Your task to perform on an android device: Search for pizza restaurants on Maps Image 0: 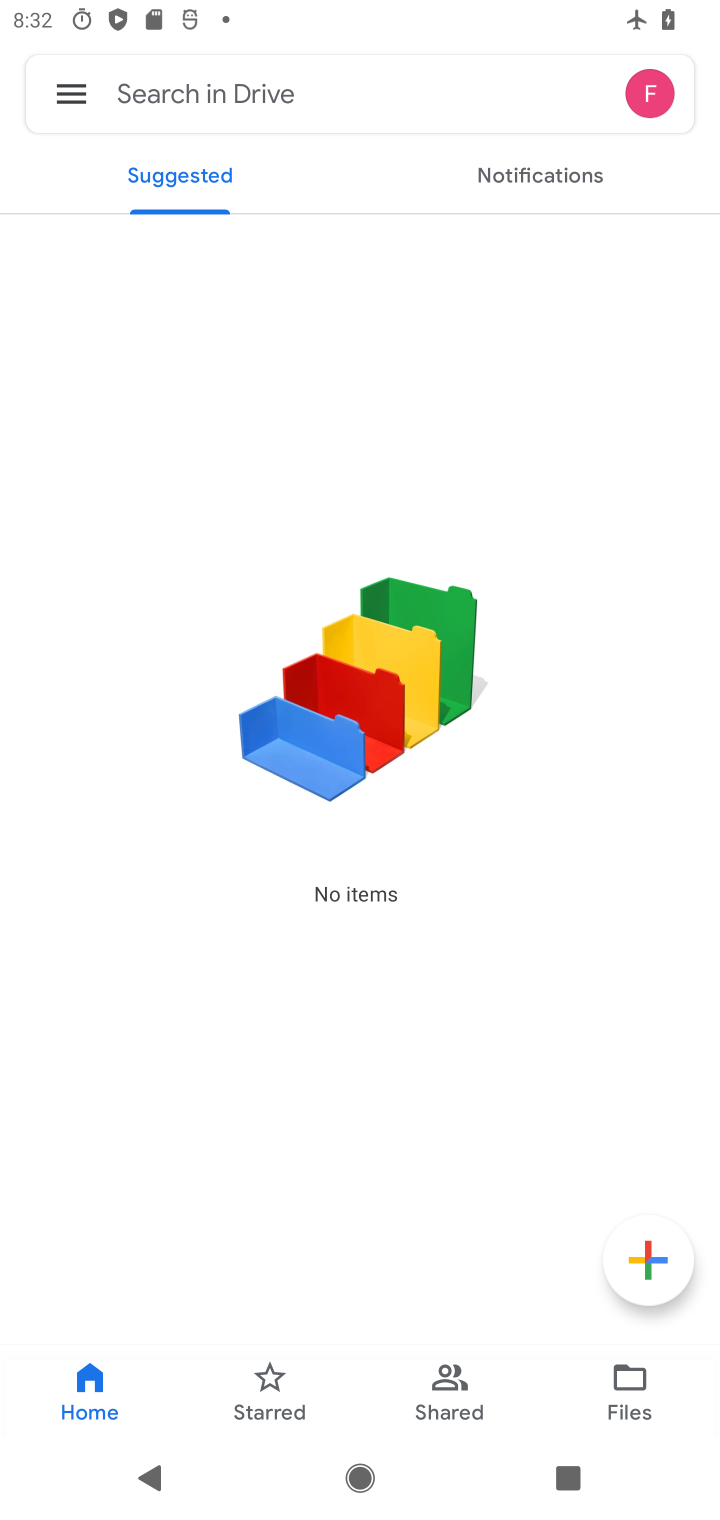
Step 0: press home button
Your task to perform on an android device: Search for pizza restaurants on Maps Image 1: 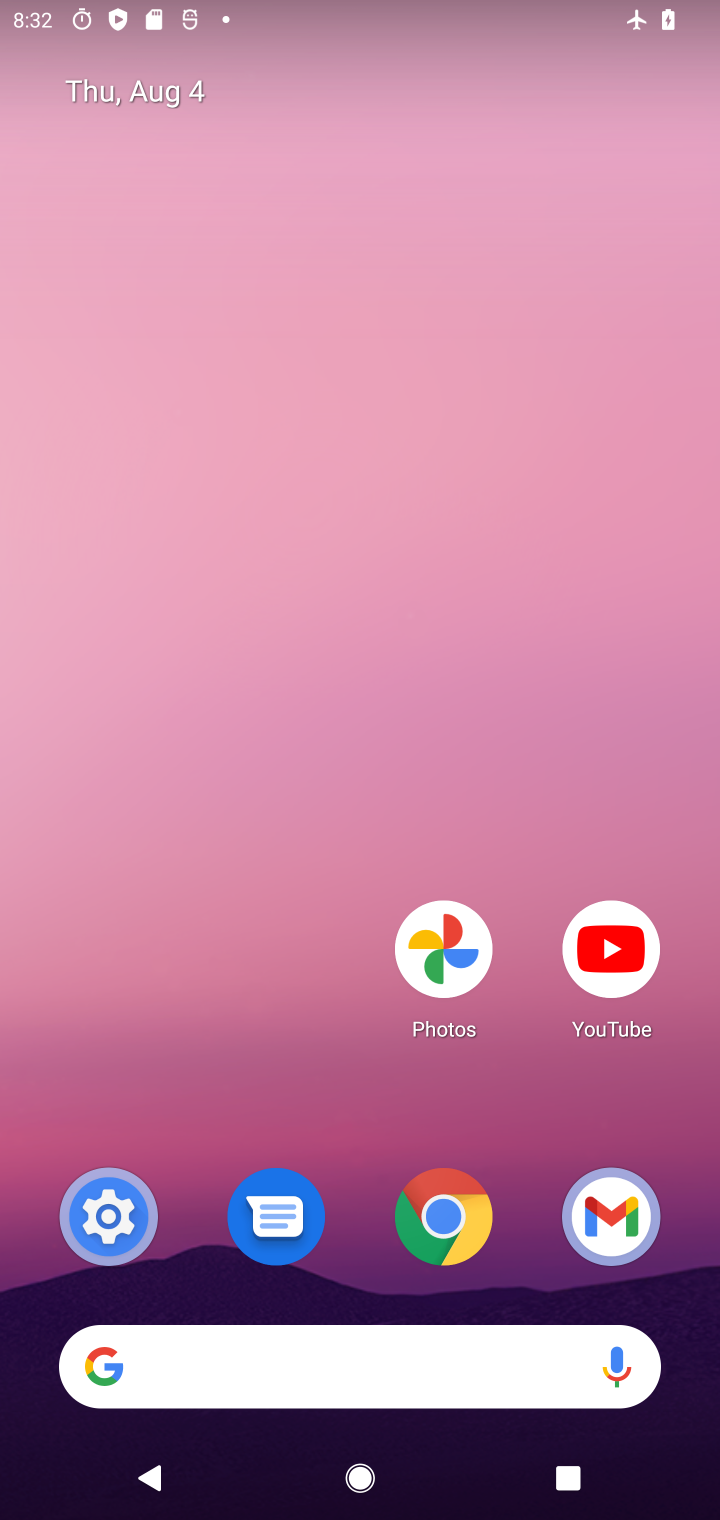
Step 1: drag from (362, 1172) to (360, 198)
Your task to perform on an android device: Search for pizza restaurants on Maps Image 2: 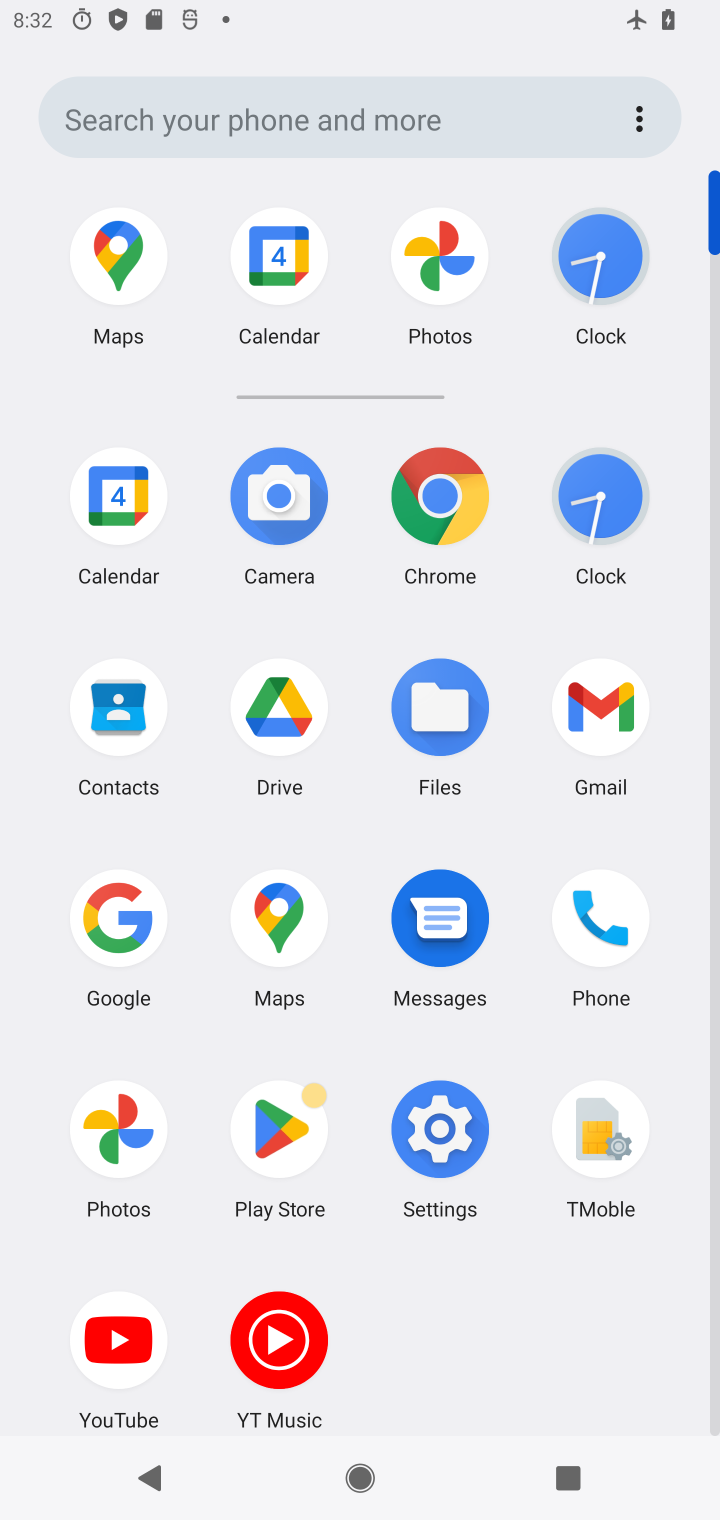
Step 2: click (277, 900)
Your task to perform on an android device: Search for pizza restaurants on Maps Image 3: 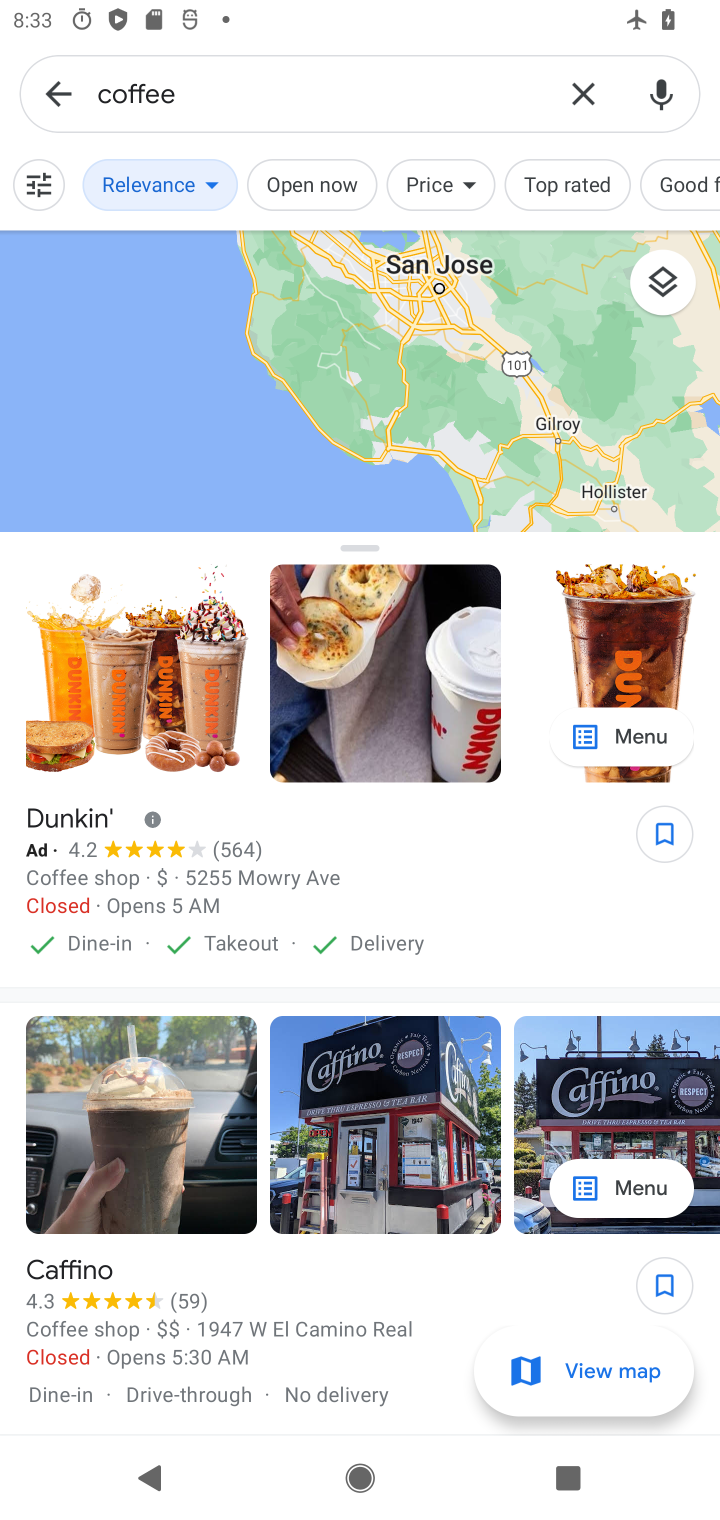
Step 3: click (576, 90)
Your task to perform on an android device: Search for pizza restaurants on Maps Image 4: 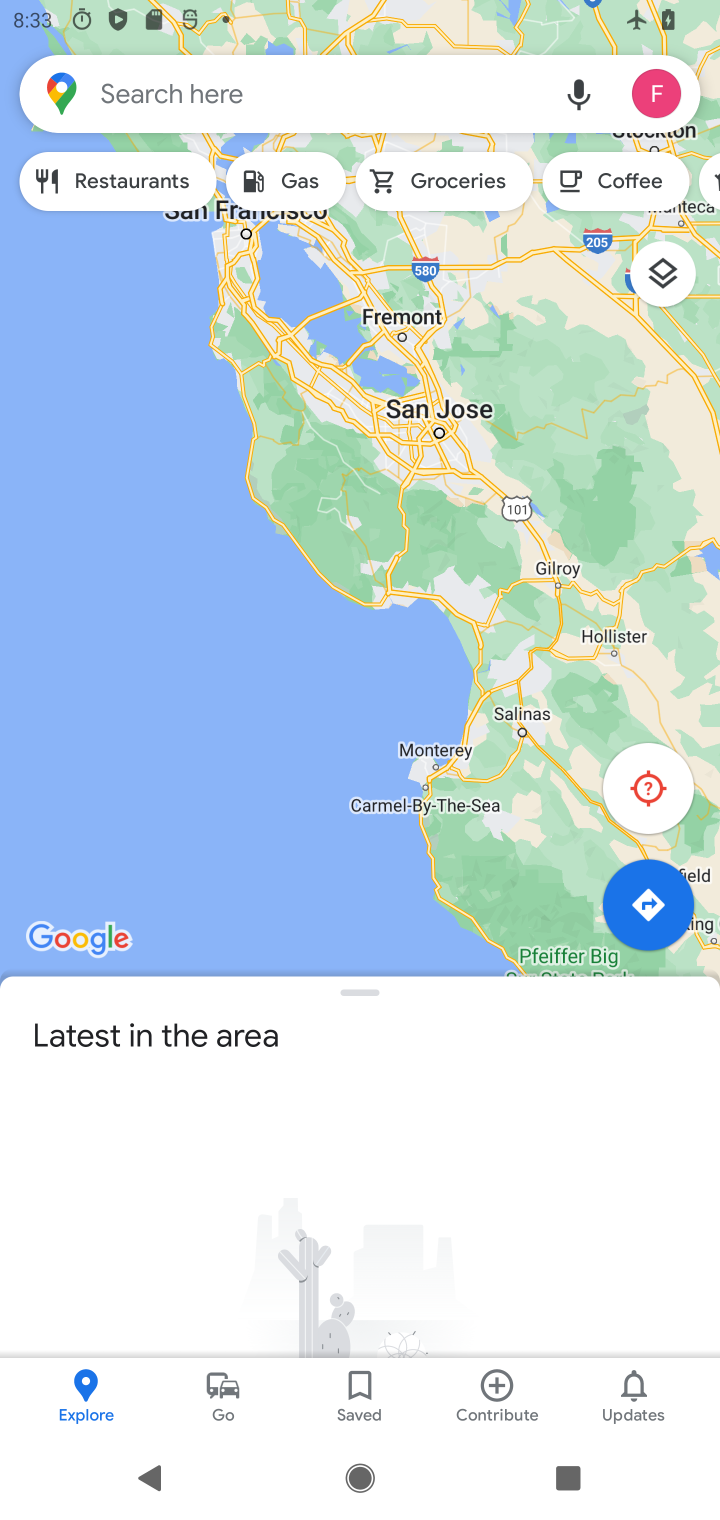
Step 4: click (349, 96)
Your task to perform on an android device: Search for pizza restaurants on Maps Image 5: 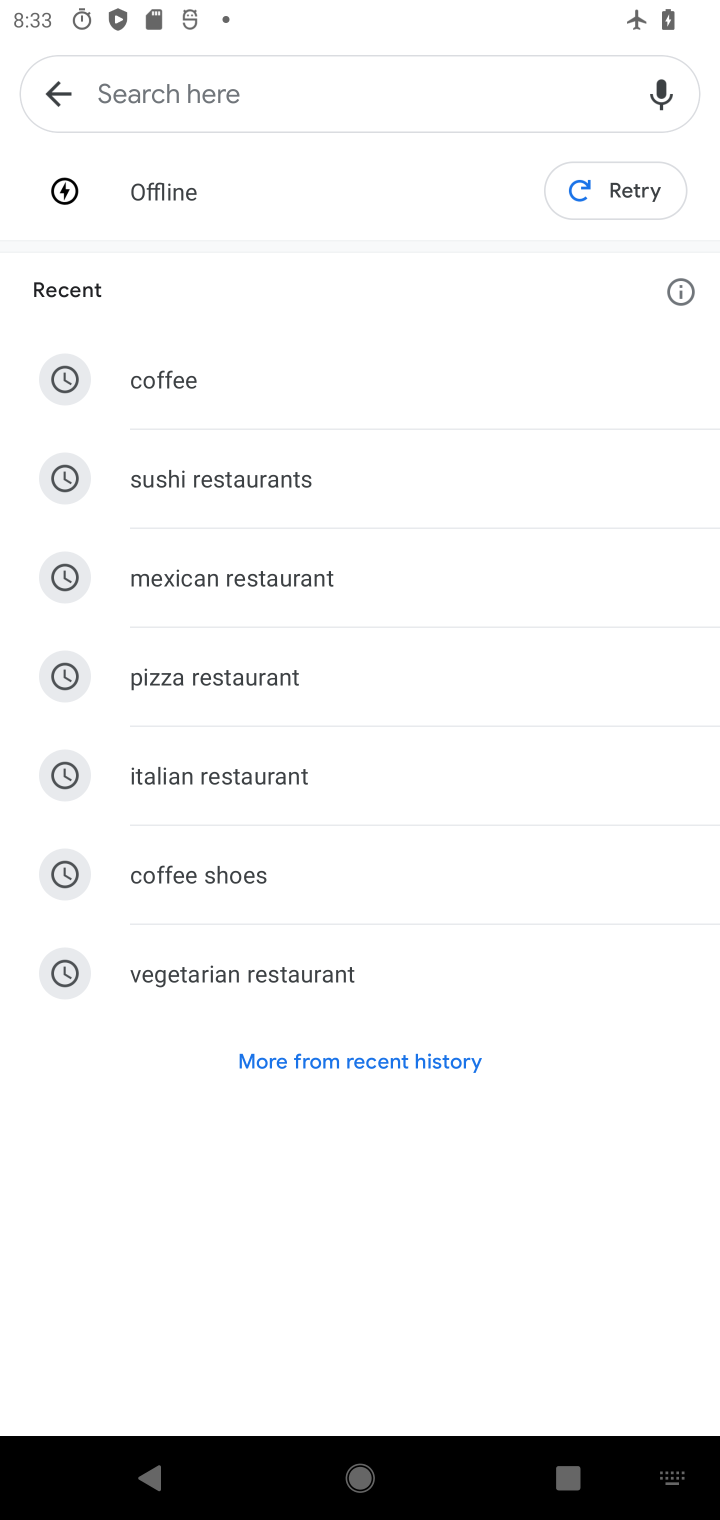
Step 5: type "Pizza restaurants"
Your task to perform on an android device: Search for pizza restaurants on Maps Image 6: 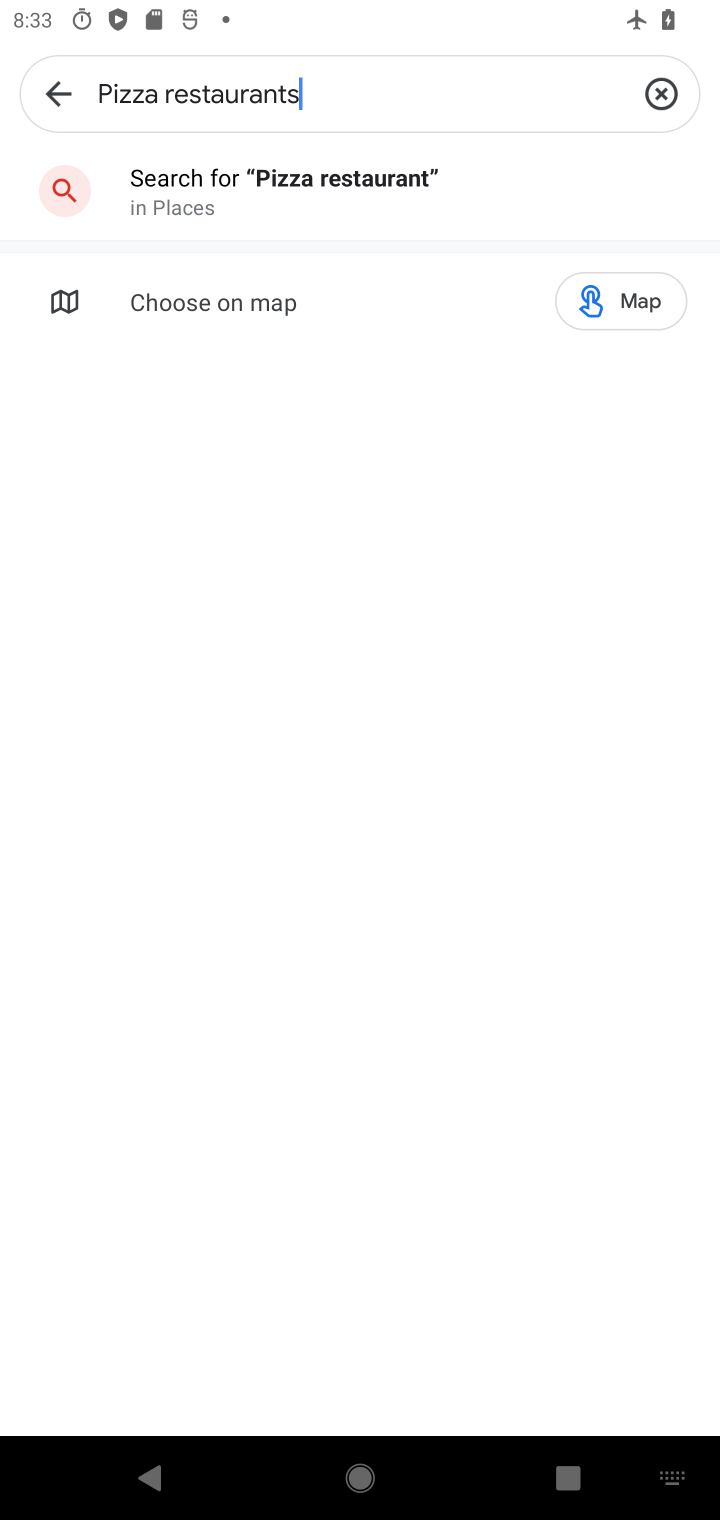
Step 6: type ""
Your task to perform on an android device: Search for pizza restaurants on Maps Image 7: 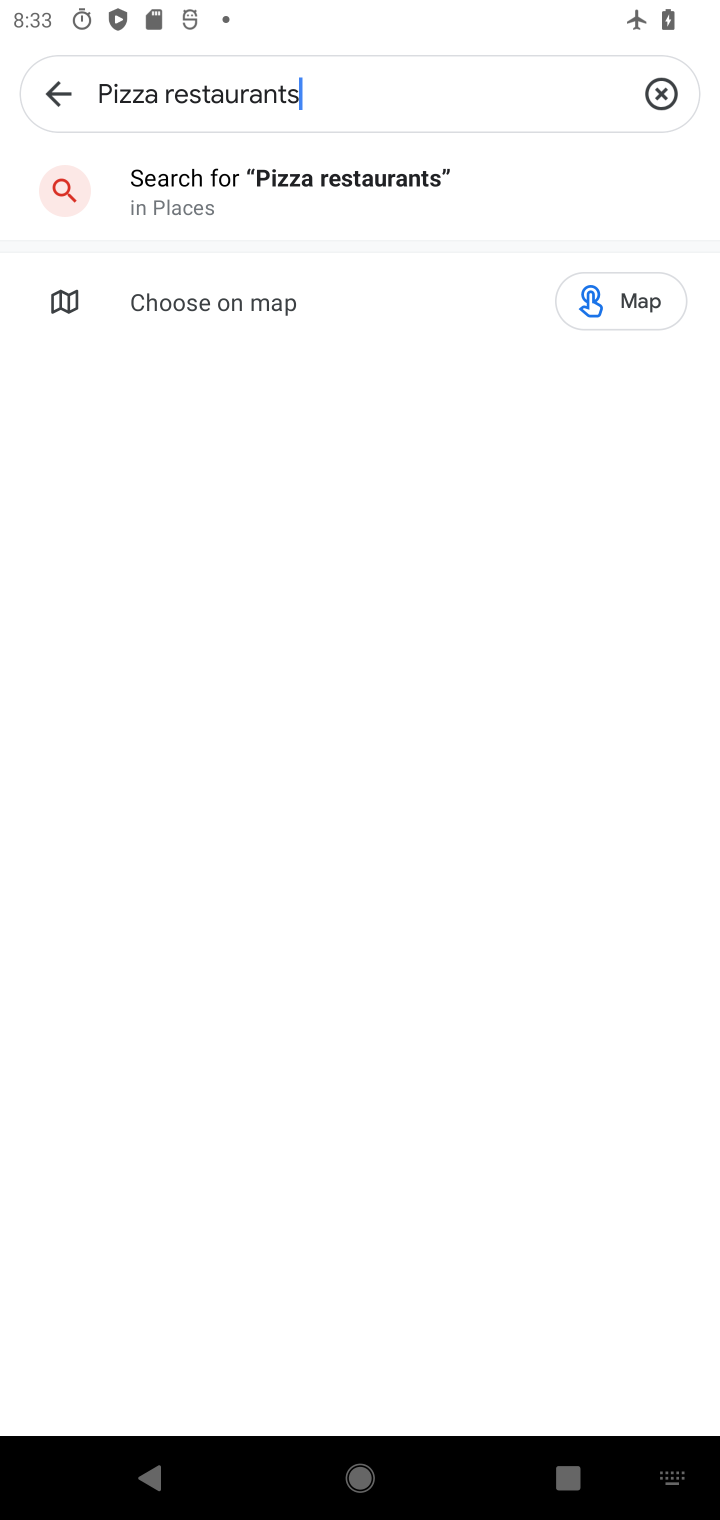
Step 7: click (331, 174)
Your task to perform on an android device: Search for pizza restaurants on Maps Image 8: 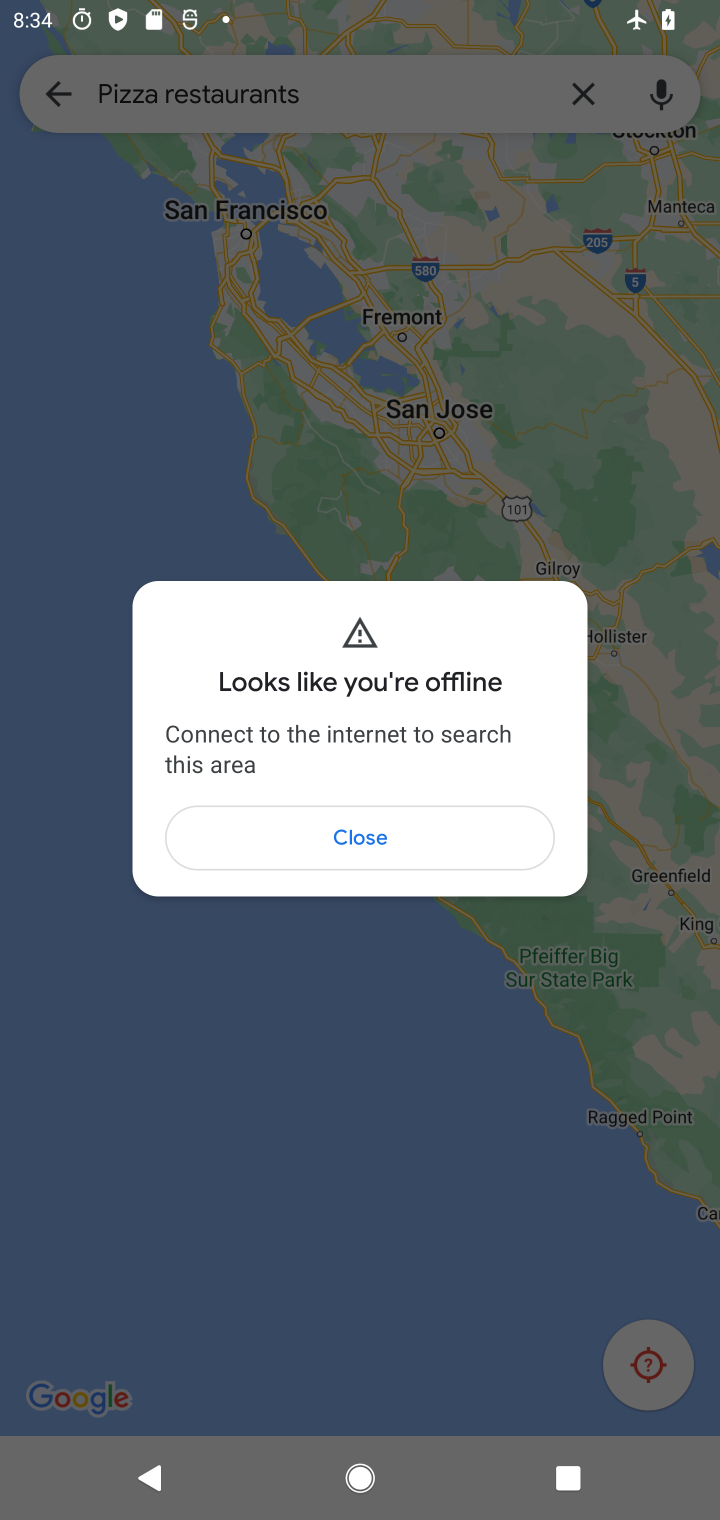
Step 8: click (350, 832)
Your task to perform on an android device: Search for pizza restaurants on Maps Image 9: 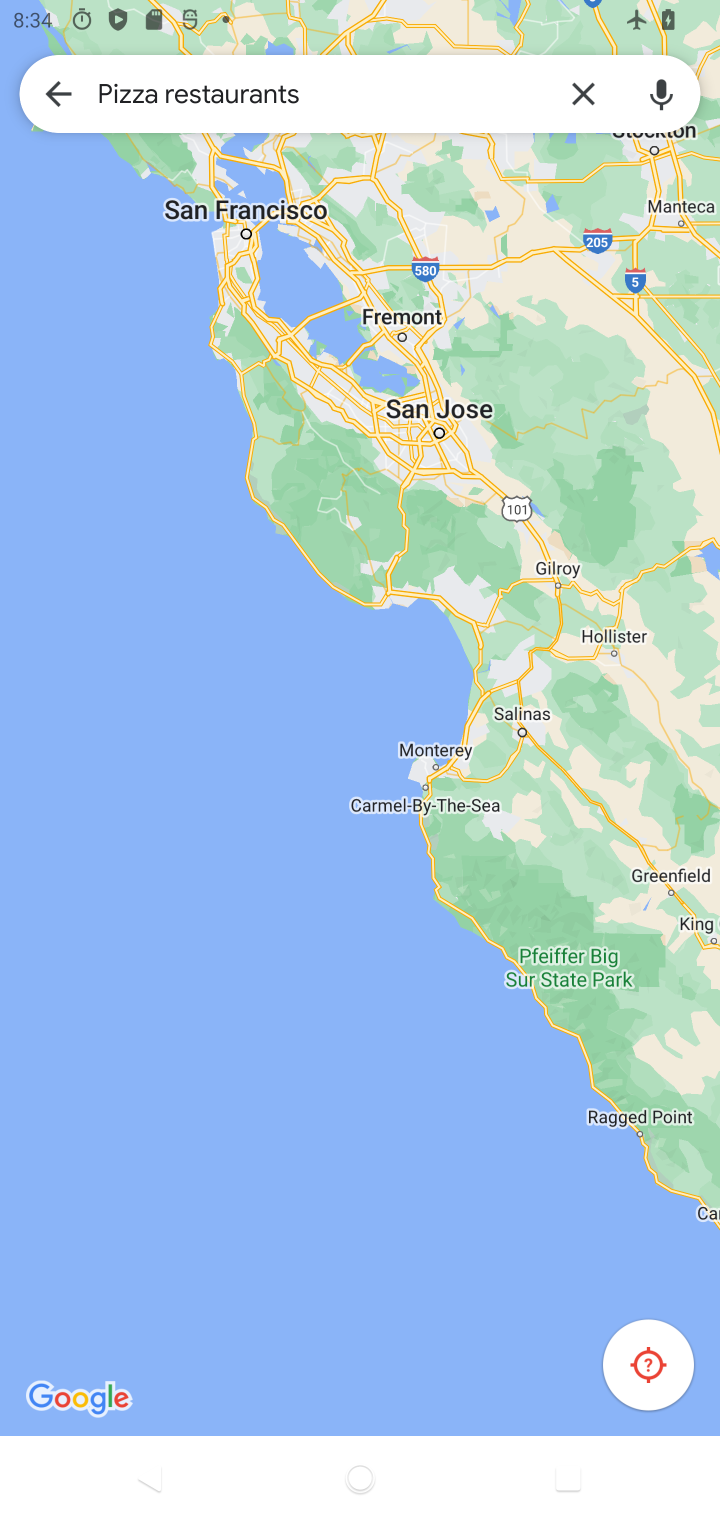
Step 9: task complete